Your task to perform on an android device: turn off wifi Image 0: 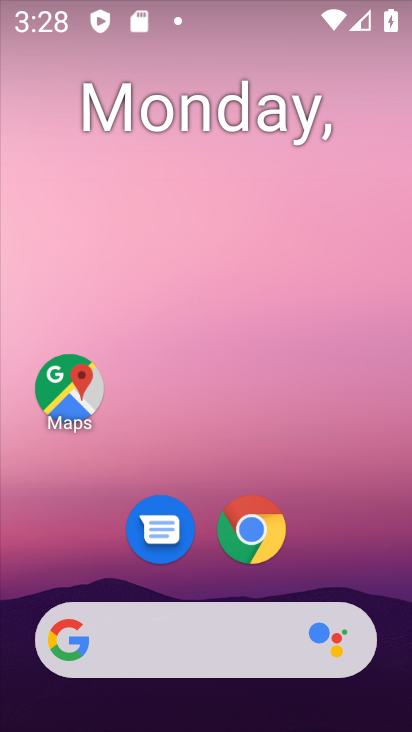
Step 0: drag from (259, 639) to (201, 172)
Your task to perform on an android device: turn off wifi Image 1: 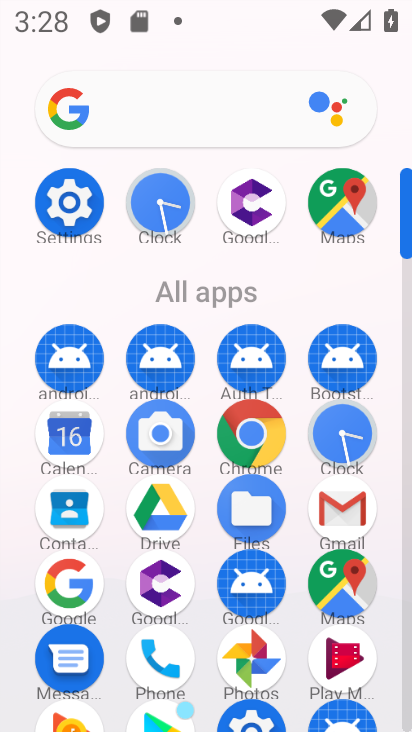
Step 1: click (75, 221)
Your task to perform on an android device: turn off wifi Image 2: 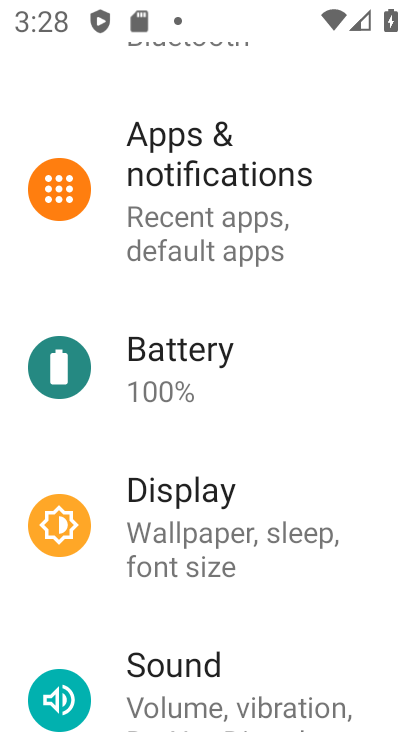
Step 2: drag from (186, 155) to (146, 719)
Your task to perform on an android device: turn off wifi Image 3: 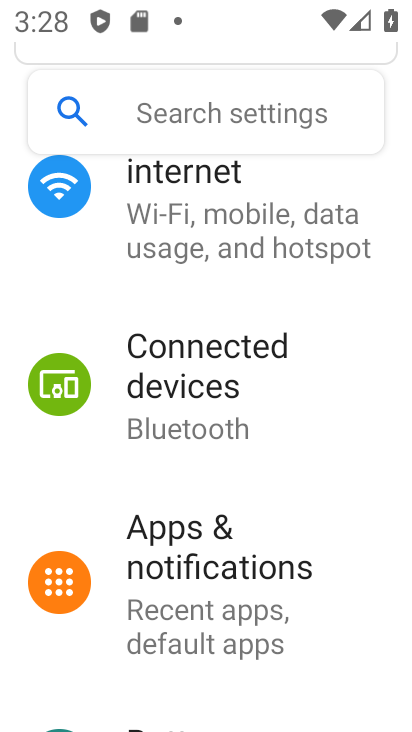
Step 3: drag from (162, 232) to (190, 720)
Your task to perform on an android device: turn off wifi Image 4: 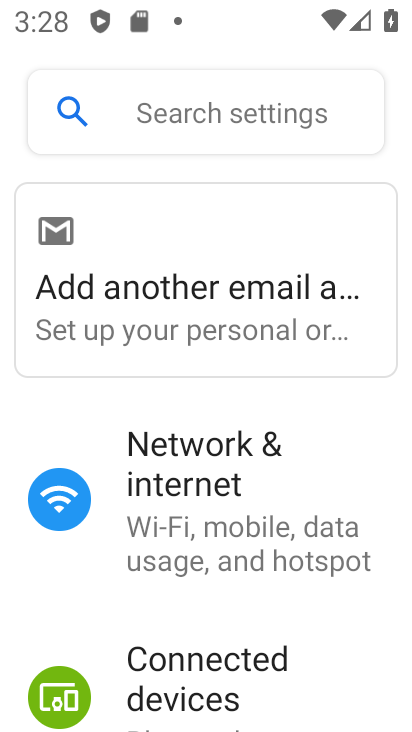
Step 4: click (224, 430)
Your task to perform on an android device: turn off wifi Image 5: 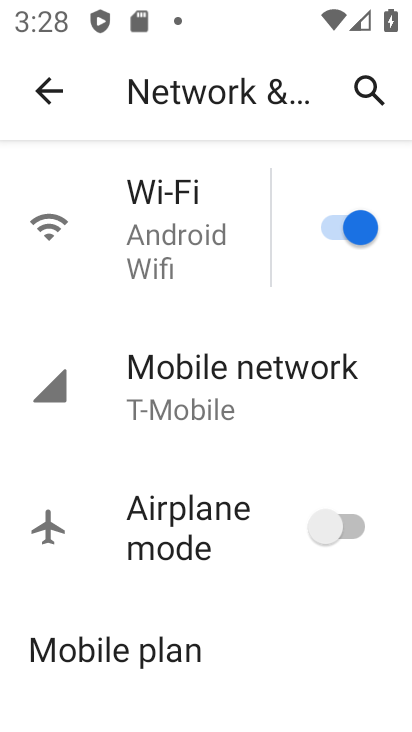
Step 5: click (348, 221)
Your task to perform on an android device: turn off wifi Image 6: 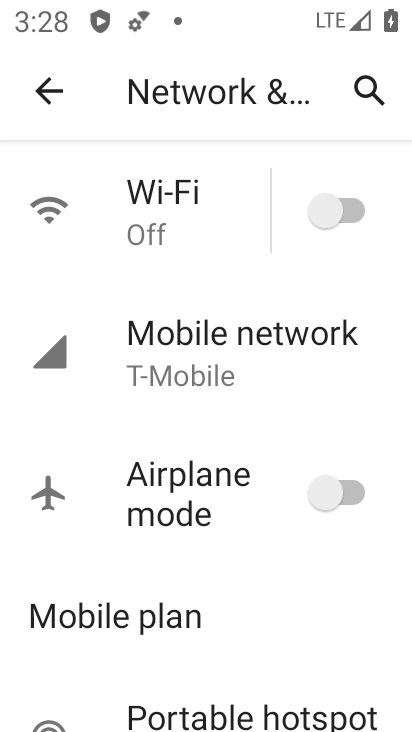
Step 6: task complete